Your task to perform on an android device: Open the map Image 0: 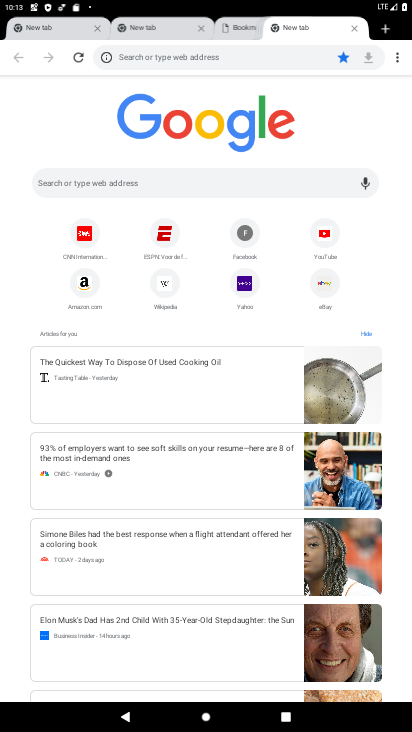
Step 0: press home button
Your task to perform on an android device: Open the map Image 1: 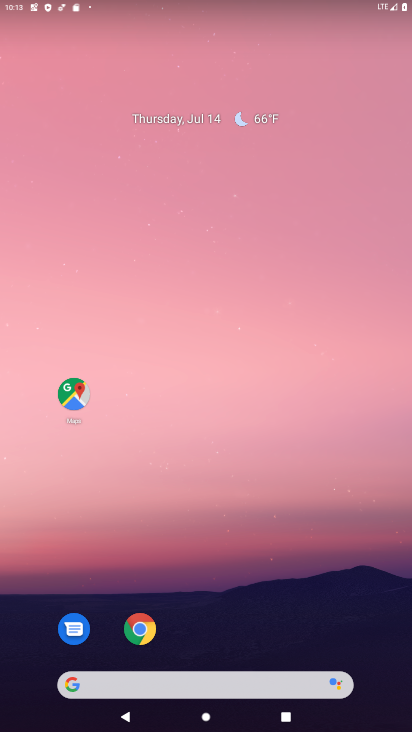
Step 1: click (69, 395)
Your task to perform on an android device: Open the map Image 2: 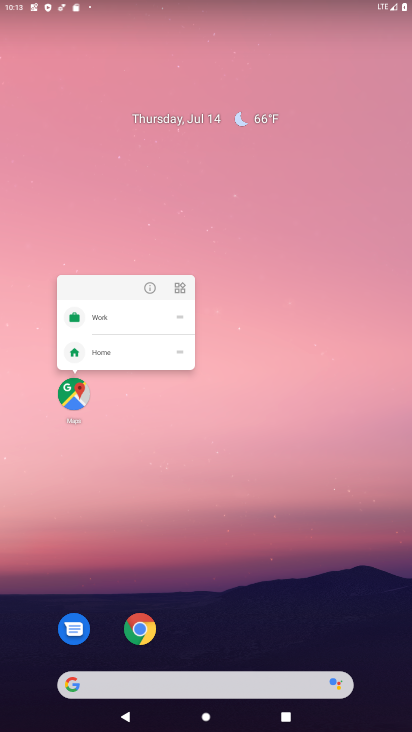
Step 2: click (69, 389)
Your task to perform on an android device: Open the map Image 3: 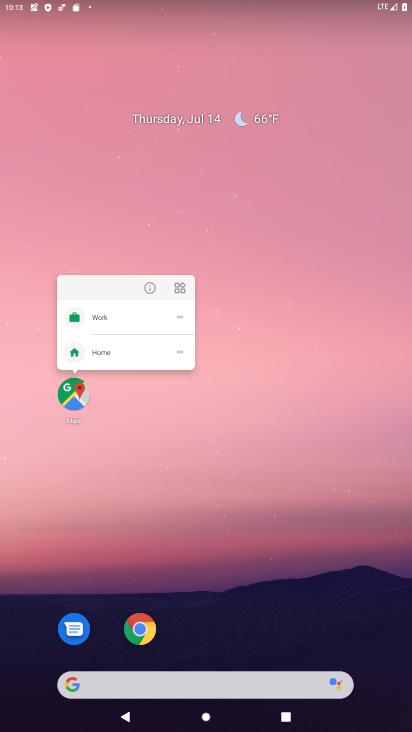
Step 3: click (69, 389)
Your task to perform on an android device: Open the map Image 4: 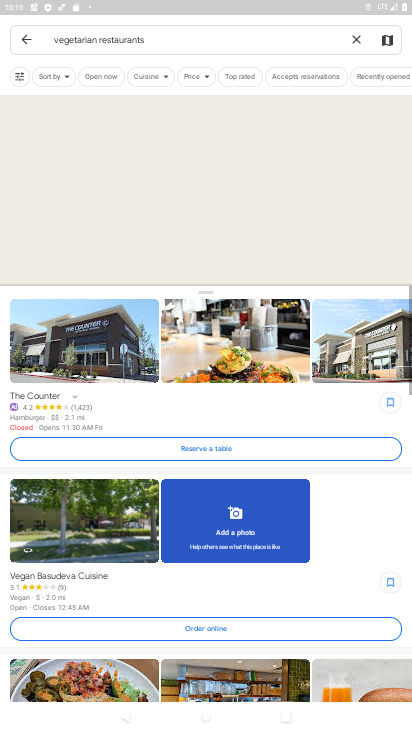
Step 4: click (28, 45)
Your task to perform on an android device: Open the map Image 5: 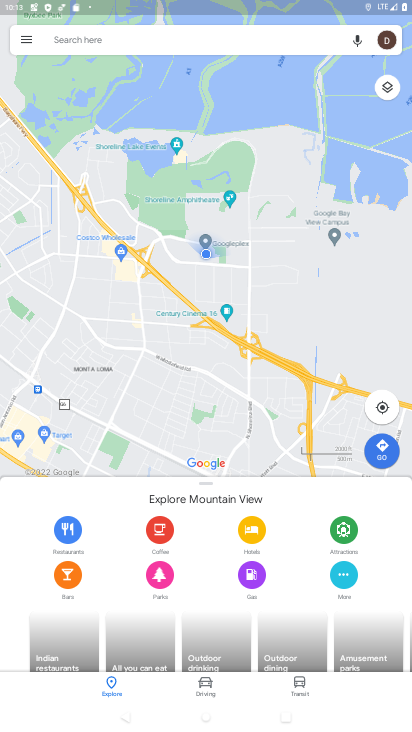
Step 5: task complete